Your task to perform on an android device: make emails show in primary in the gmail app Image 0: 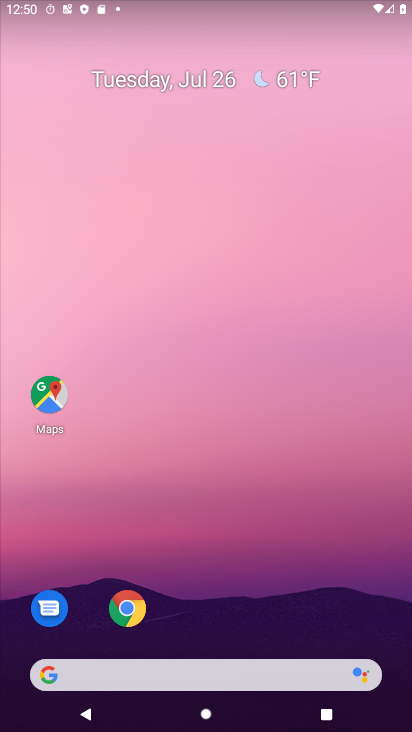
Step 0: press home button
Your task to perform on an android device: make emails show in primary in the gmail app Image 1: 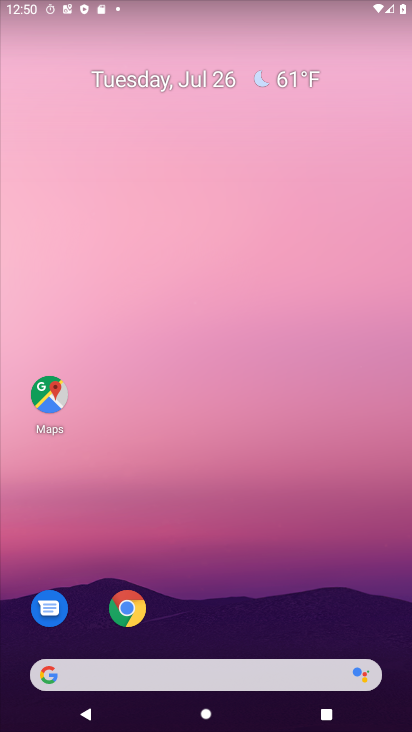
Step 1: drag from (367, 600) to (337, 203)
Your task to perform on an android device: make emails show in primary in the gmail app Image 2: 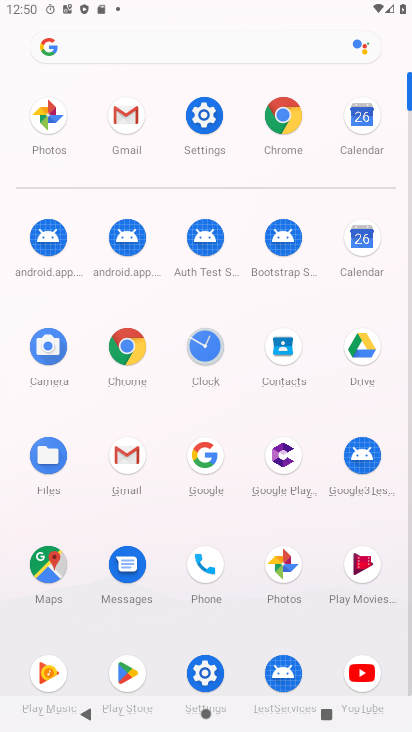
Step 2: click (128, 456)
Your task to perform on an android device: make emails show in primary in the gmail app Image 3: 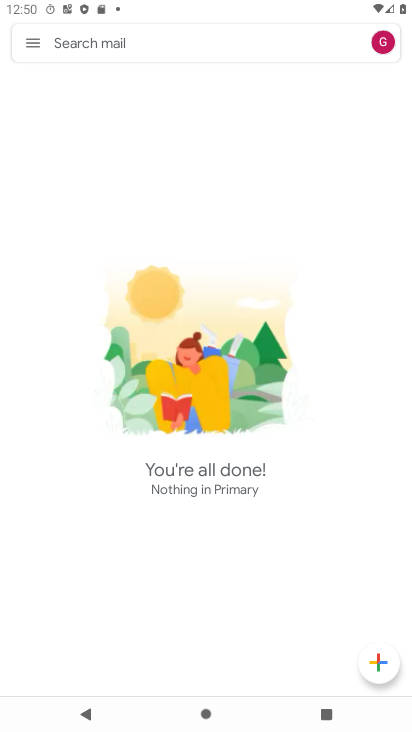
Step 3: click (32, 40)
Your task to perform on an android device: make emails show in primary in the gmail app Image 4: 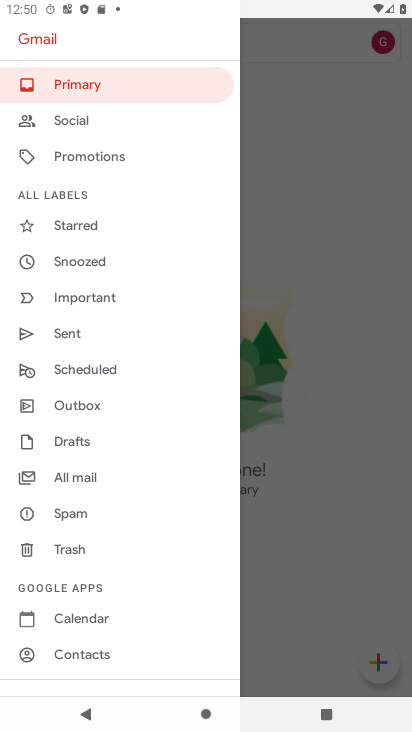
Step 4: drag from (152, 336) to (157, 288)
Your task to perform on an android device: make emails show in primary in the gmail app Image 5: 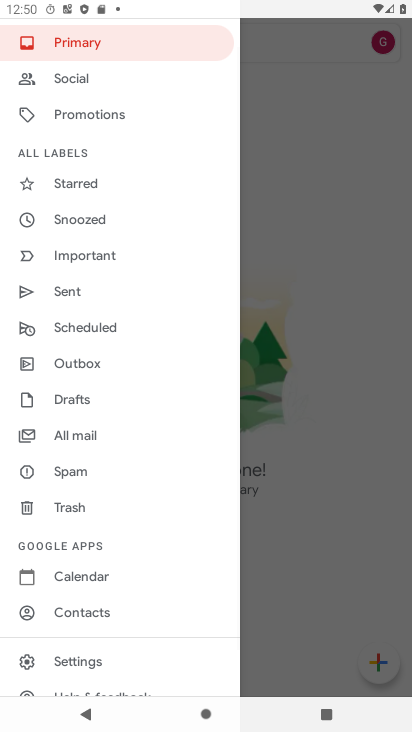
Step 5: drag from (156, 420) to (156, 288)
Your task to perform on an android device: make emails show in primary in the gmail app Image 6: 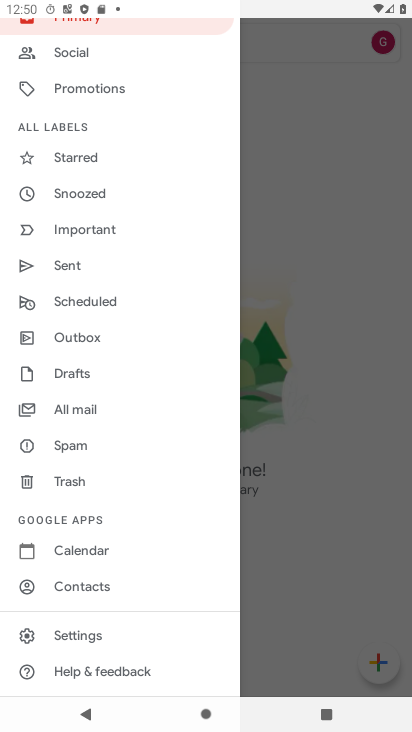
Step 6: click (150, 625)
Your task to perform on an android device: make emails show in primary in the gmail app Image 7: 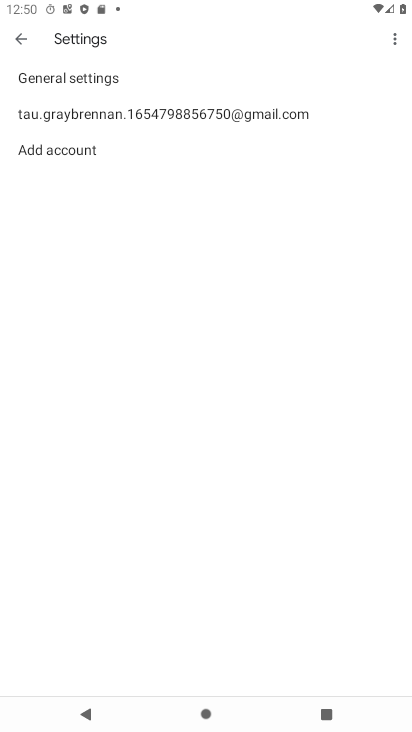
Step 7: click (205, 120)
Your task to perform on an android device: make emails show in primary in the gmail app Image 8: 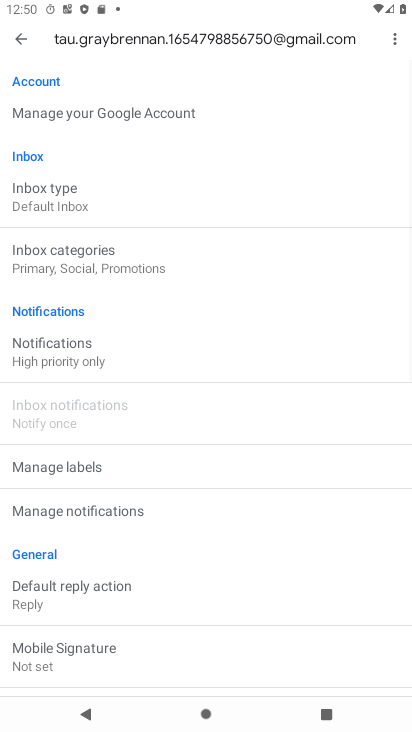
Step 8: drag from (304, 415) to (314, 293)
Your task to perform on an android device: make emails show in primary in the gmail app Image 9: 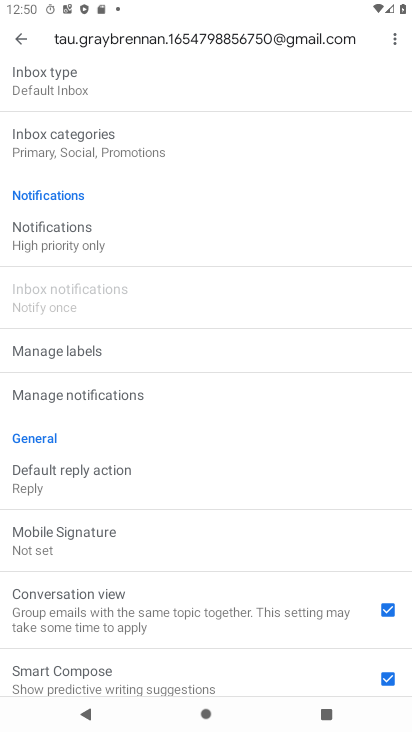
Step 9: drag from (310, 402) to (310, 331)
Your task to perform on an android device: make emails show in primary in the gmail app Image 10: 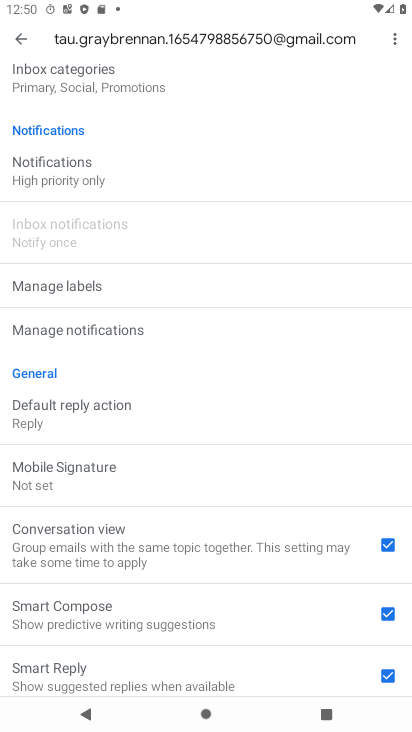
Step 10: drag from (285, 421) to (284, 332)
Your task to perform on an android device: make emails show in primary in the gmail app Image 11: 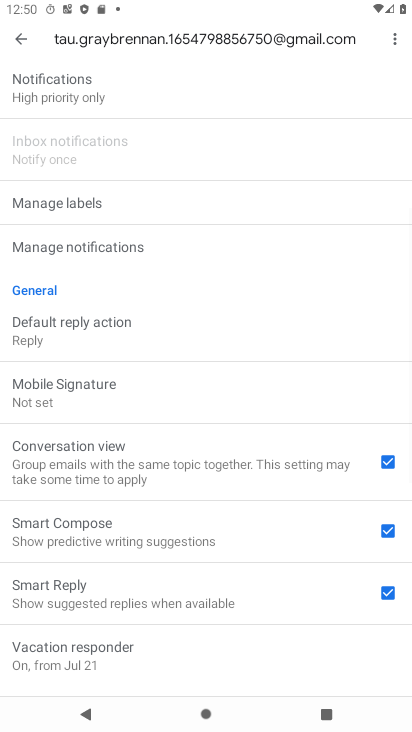
Step 11: drag from (271, 452) to (271, 360)
Your task to perform on an android device: make emails show in primary in the gmail app Image 12: 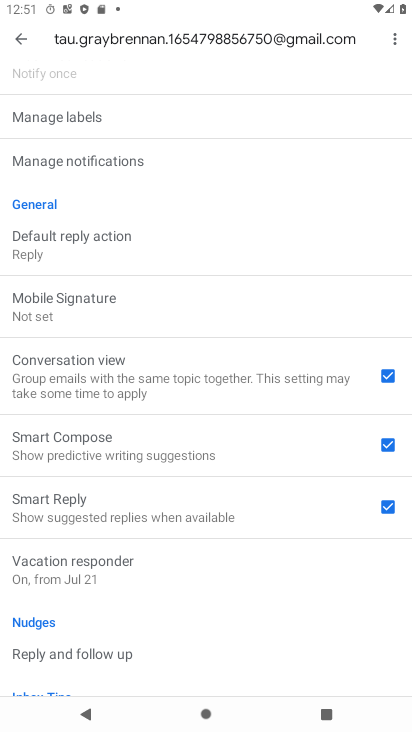
Step 12: drag from (259, 476) to (262, 398)
Your task to perform on an android device: make emails show in primary in the gmail app Image 13: 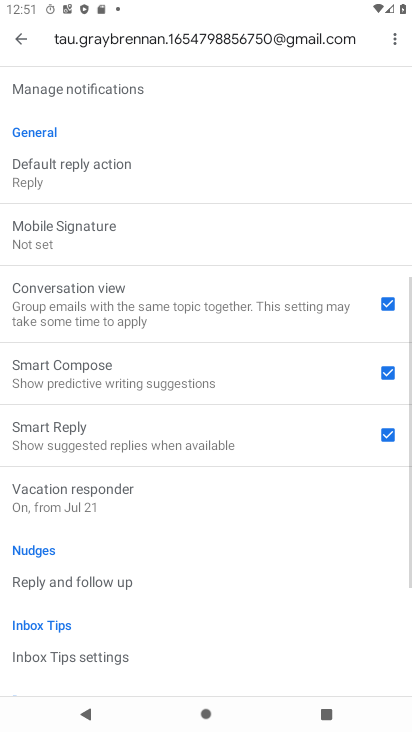
Step 13: drag from (247, 511) to (252, 421)
Your task to perform on an android device: make emails show in primary in the gmail app Image 14: 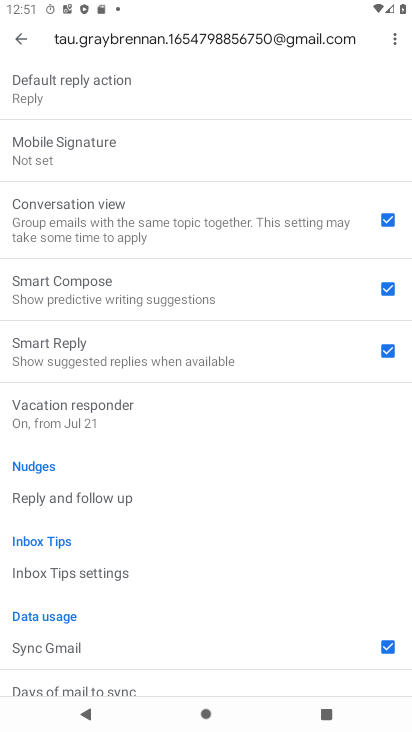
Step 14: drag from (242, 545) to (241, 431)
Your task to perform on an android device: make emails show in primary in the gmail app Image 15: 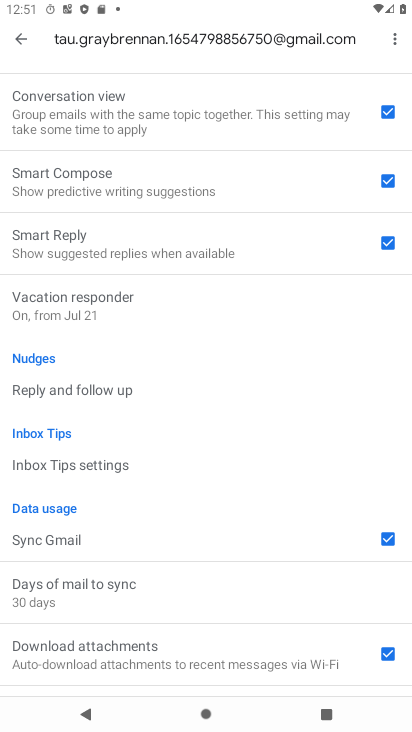
Step 15: drag from (248, 294) to (248, 397)
Your task to perform on an android device: make emails show in primary in the gmail app Image 16: 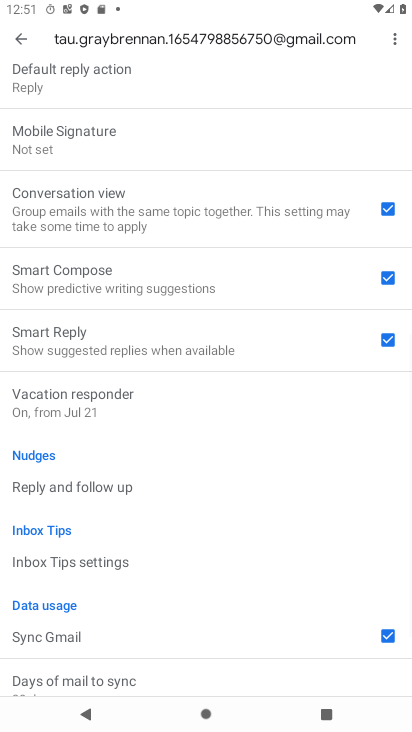
Step 16: drag from (267, 241) to (270, 334)
Your task to perform on an android device: make emails show in primary in the gmail app Image 17: 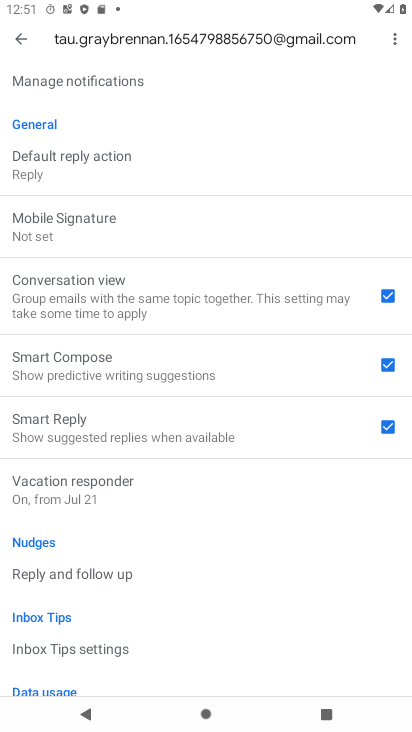
Step 17: drag from (258, 174) to (258, 282)
Your task to perform on an android device: make emails show in primary in the gmail app Image 18: 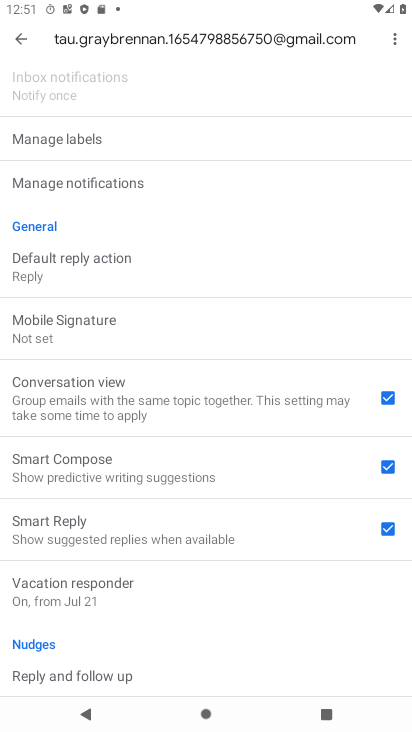
Step 18: drag from (250, 146) to (249, 295)
Your task to perform on an android device: make emails show in primary in the gmail app Image 19: 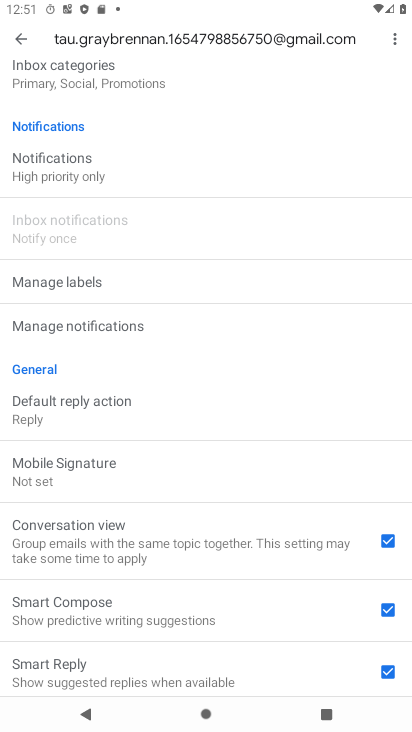
Step 19: drag from (221, 135) to (223, 332)
Your task to perform on an android device: make emails show in primary in the gmail app Image 20: 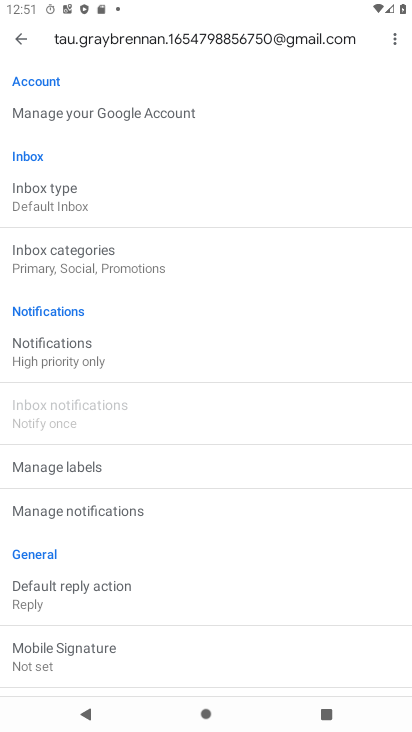
Step 20: click (173, 273)
Your task to perform on an android device: make emails show in primary in the gmail app Image 21: 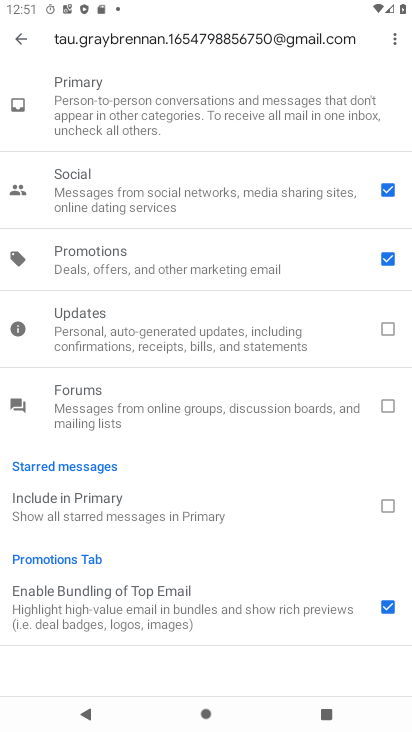
Step 21: click (391, 188)
Your task to perform on an android device: make emails show in primary in the gmail app Image 22: 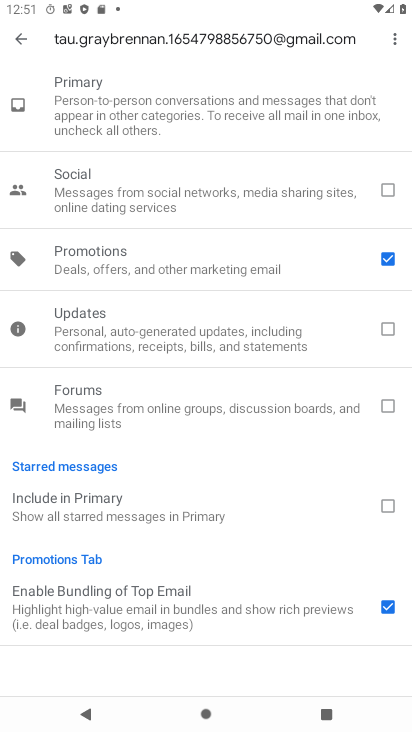
Step 22: click (389, 266)
Your task to perform on an android device: make emails show in primary in the gmail app Image 23: 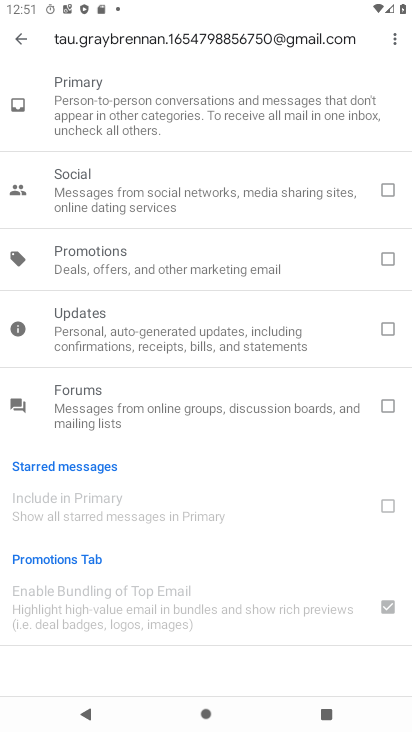
Step 23: task complete